Your task to perform on an android device: open chrome and create a bookmark for the current page Image 0: 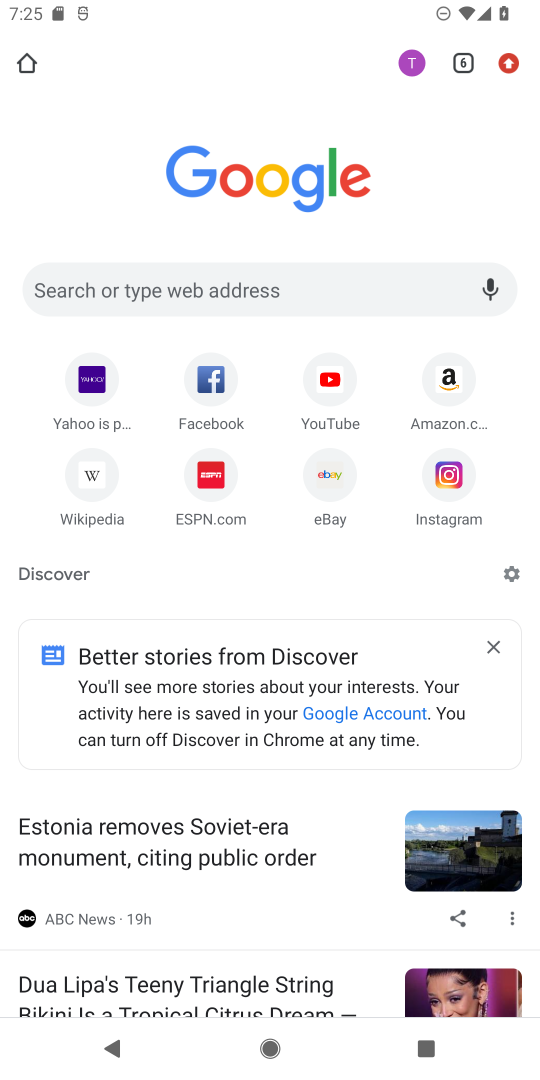
Step 0: click (505, 68)
Your task to perform on an android device: open chrome and create a bookmark for the current page Image 1: 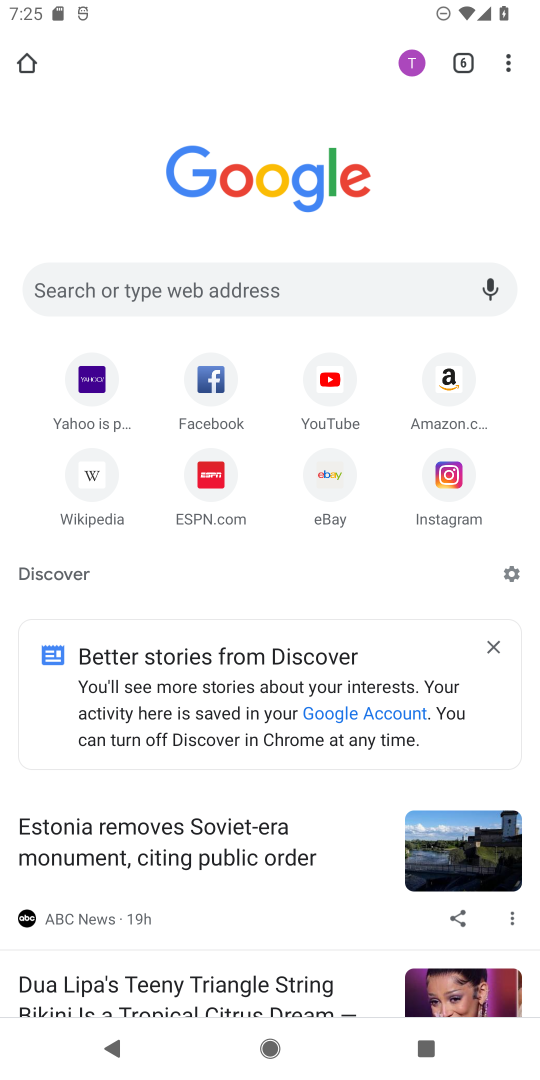
Step 1: click (496, 61)
Your task to perform on an android device: open chrome and create a bookmark for the current page Image 2: 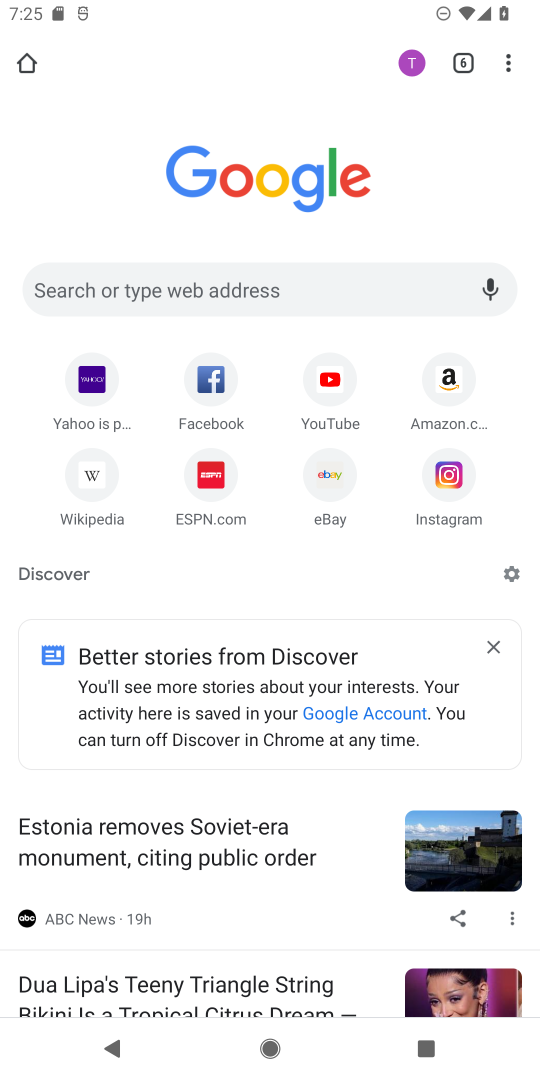
Step 2: click (496, 66)
Your task to perform on an android device: open chrome and create a bookmark for the current page Image 3: 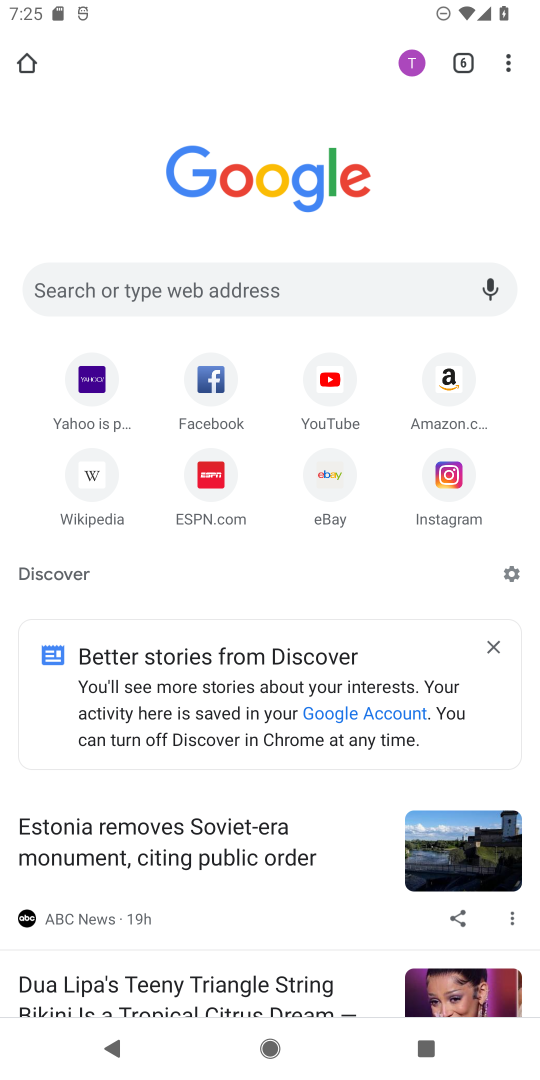
Step 3: click (493, 61)
Your task to perform on an android device: open chrome and create a bookmark for the current page Image 4: 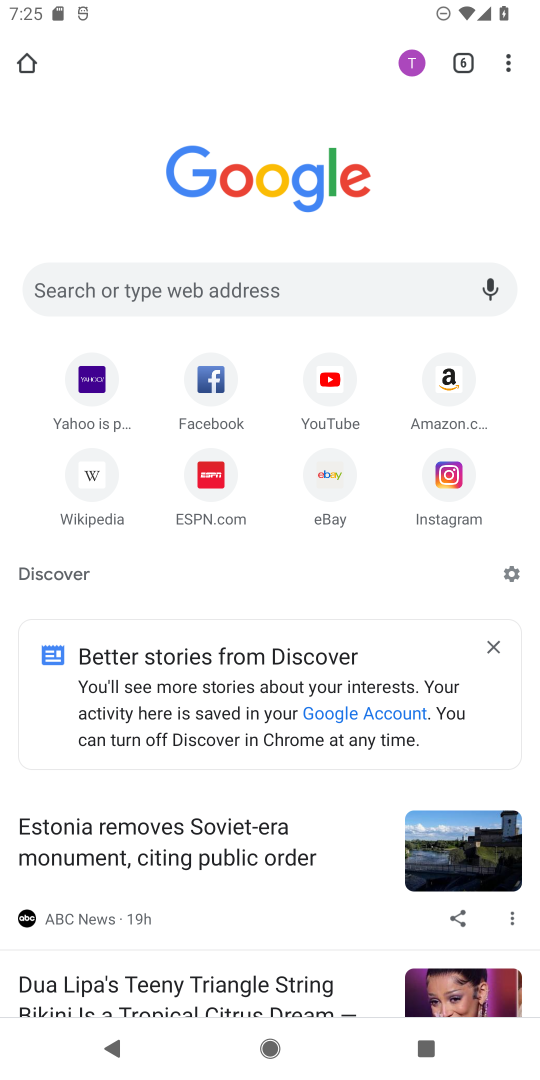
Step 4: click (518, 59)
Your task to perform on an android device: open chrome and create a bookmark for the current page Image 5: 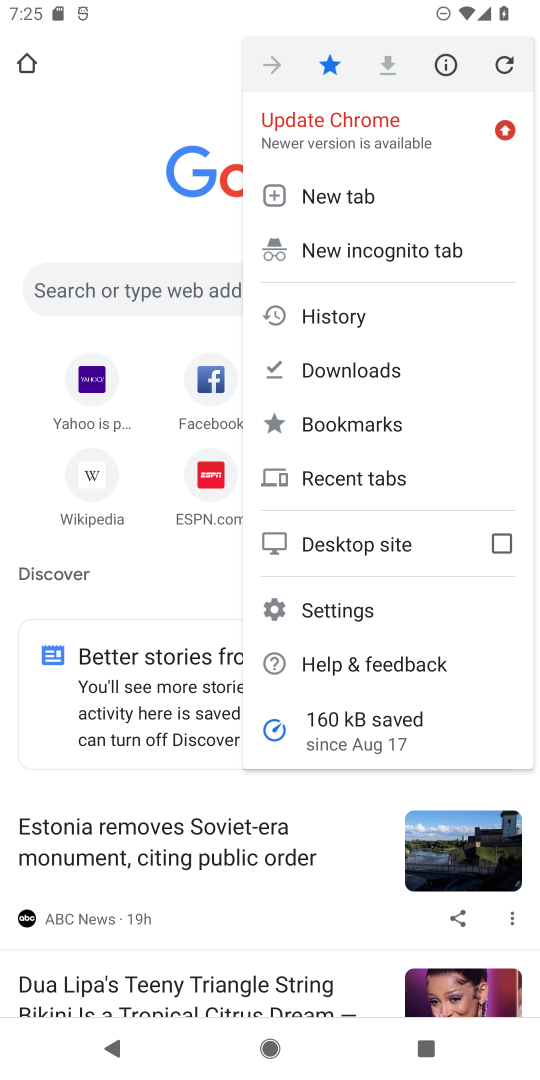
Step 5: task complete